Your task to perform on an android device: Open privacy settings Image 0: 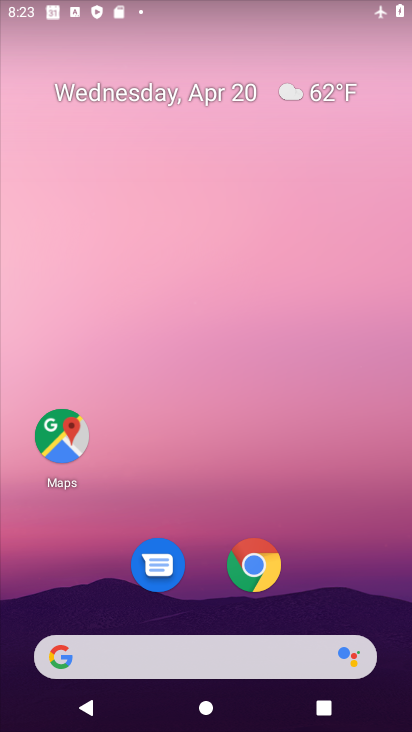
Step 0: click (341, 31)
Your task to perform on an android device: Open privacy settings Image 1: 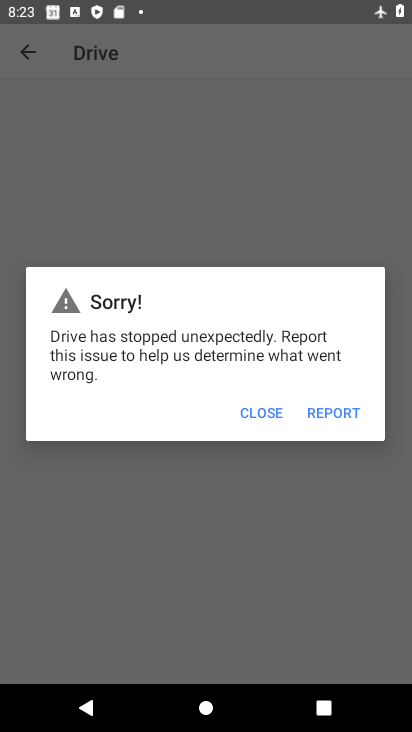
Step 1: press home button
Your task to perform on an android device: Open privacy settings Image 2: 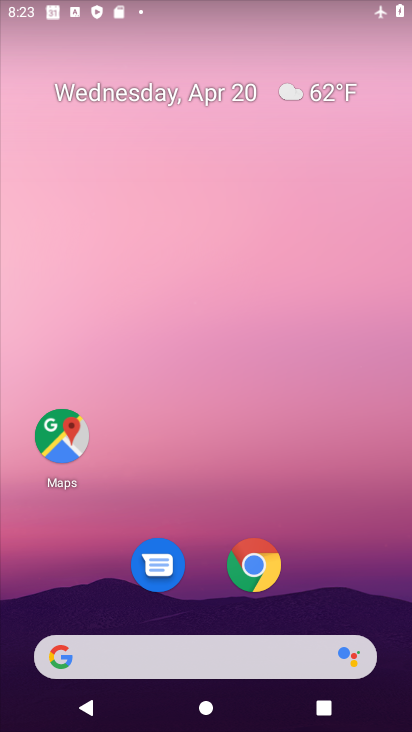
Step 2: drag from (305, 568) to (269, 75)
Your task to perform on an android device: Open privacy settings Image 3: 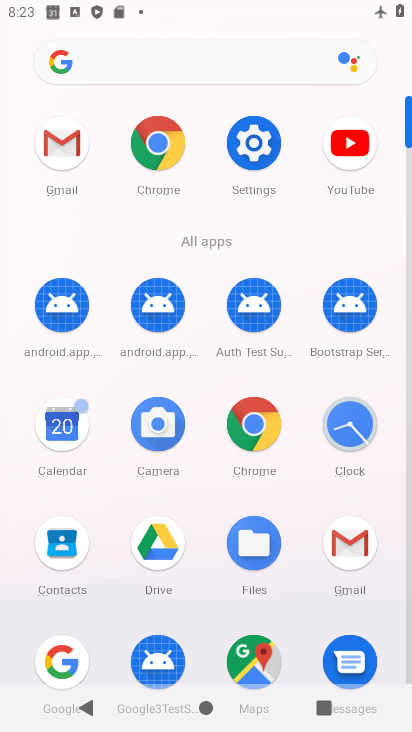
Step 3: click (254, 131)
Your task to perform on an android device: Open privacy settings Image 4: 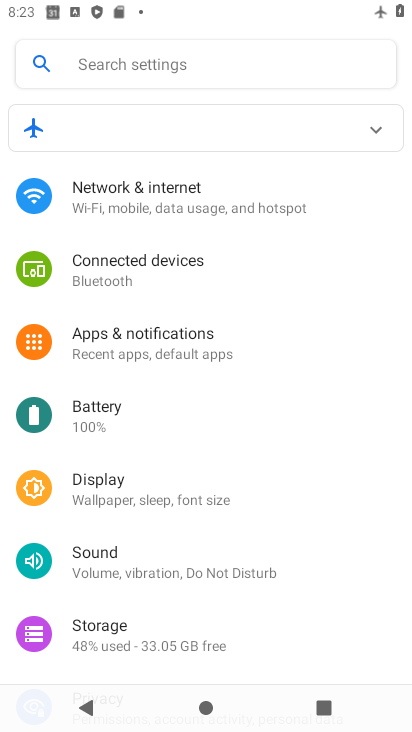
Step 4: drag from (171, 618) to (191, 270)
Your task to perform on an android device: Open privacy settings Image 5: 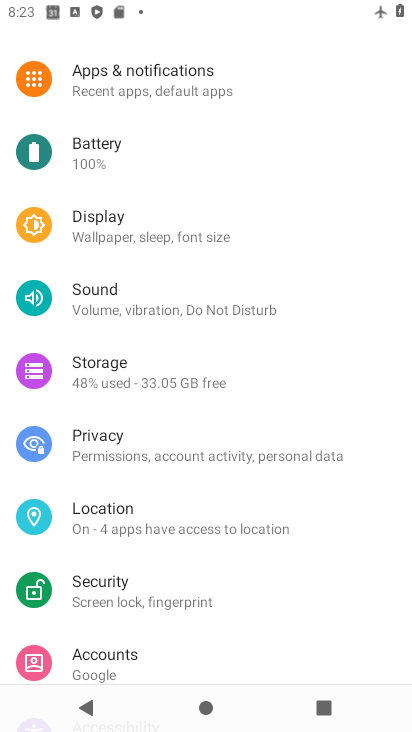
Step 5: click (81, 446)
Your task to perform on an android device: Open privacy settings Image 6: 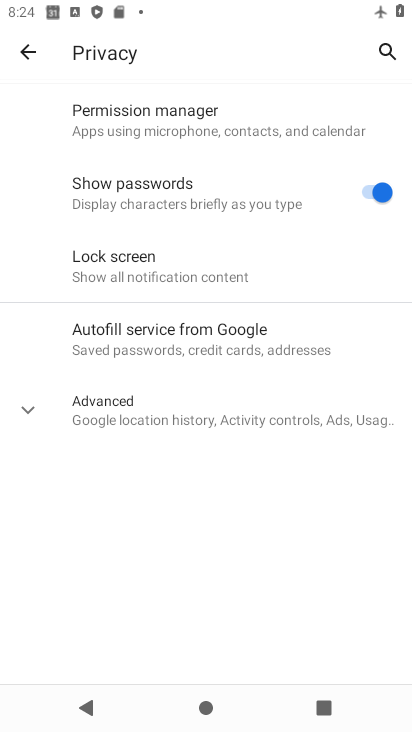
Step 6: task complete